Your task to perform on an android device: Open CNN.com Image 0: 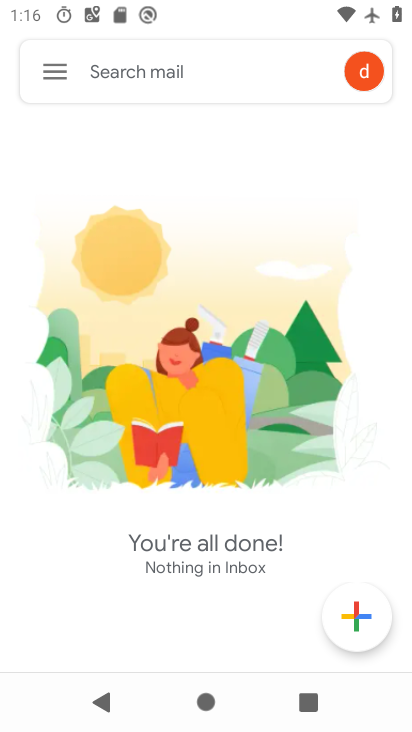
Step 0: press home button
Your task to perform on an android device: Open CNN.com Image 1: 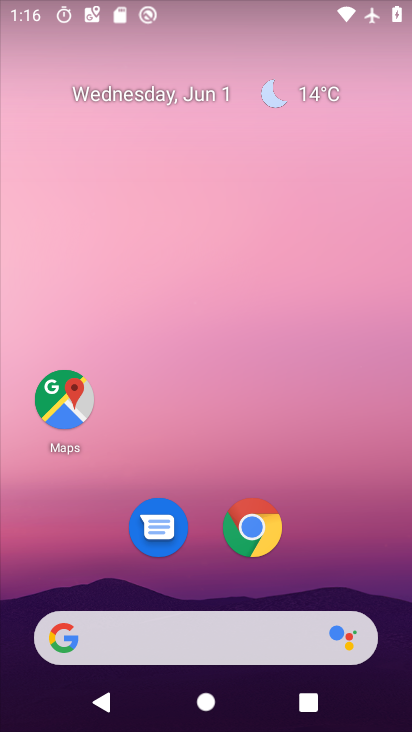
Step 1: click (256, 532)
Your task to perform on an android device: Open CNN.com Image 2: 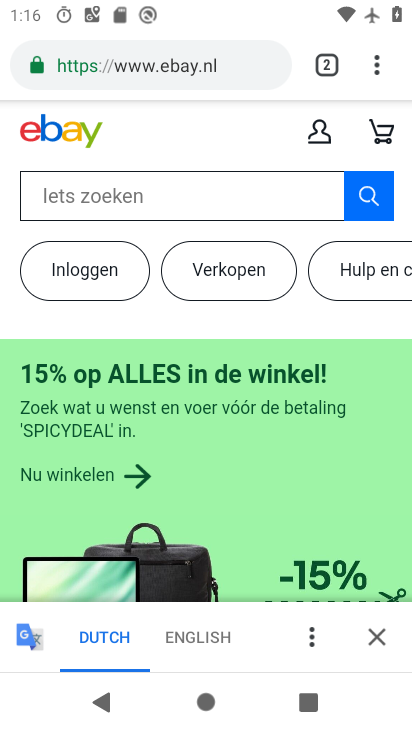
Step 2: click (100, 73)
Your task to perform on an android device: Open CNN.com Image 3: 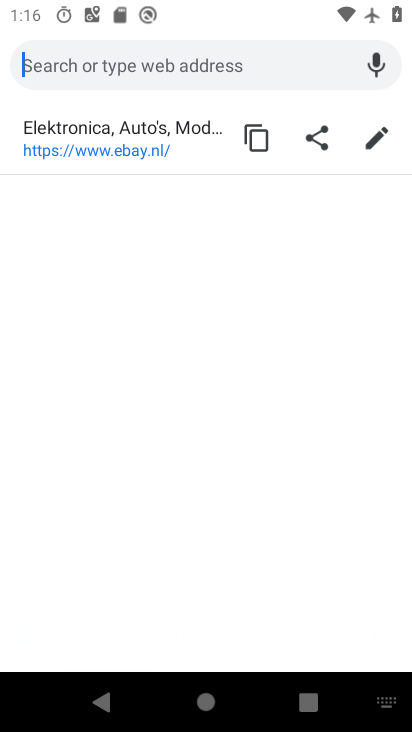
Step 3: type "cnn.com"
Your task to perform on an android device: Open CNN.com Image 4: 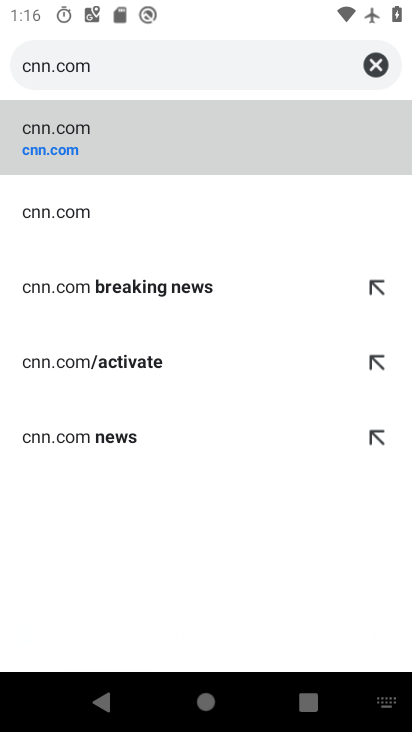
Step 4: click (46, 145)
Your task to perform on an android device: Open CNN.com Image 5: 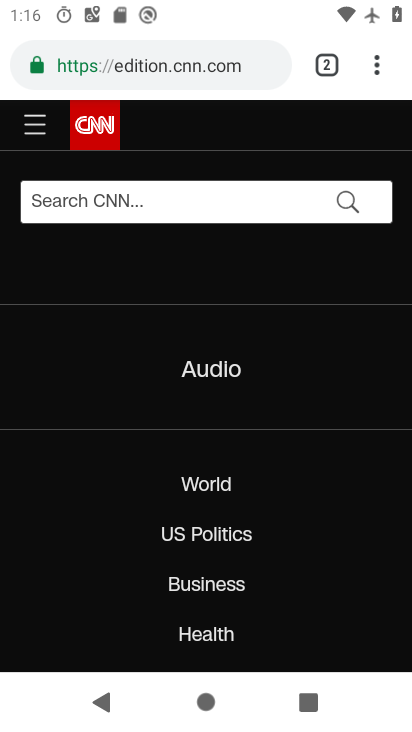
Step 5: task complete